Your task to perform on an android device: See recent photos Image 0: 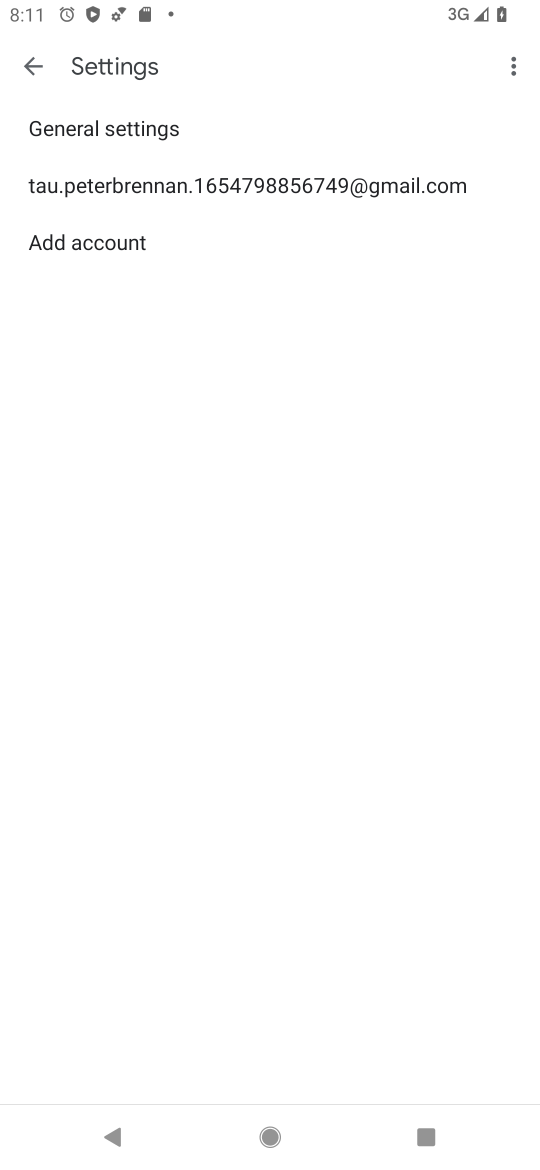
Step 0: click (17, 55)
Your task to perform on an android device: See recent photos Image 1: 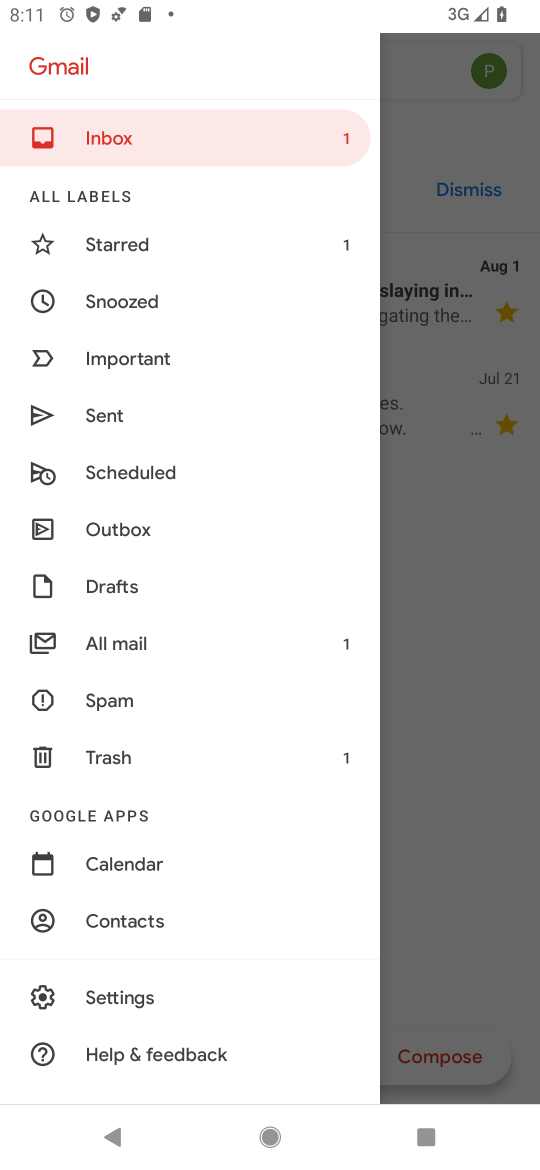
Step 1: press back button
Your task to perform on an android device: See recent photos Image 2: 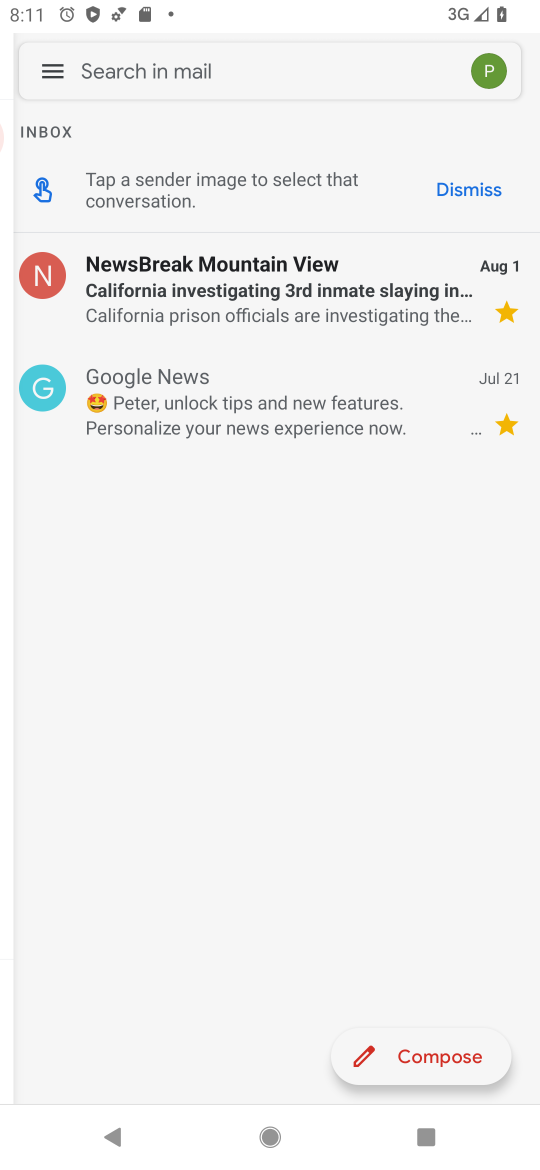
Step 2: press home button
Your task to perform on an android device: See recent photos Image 3: 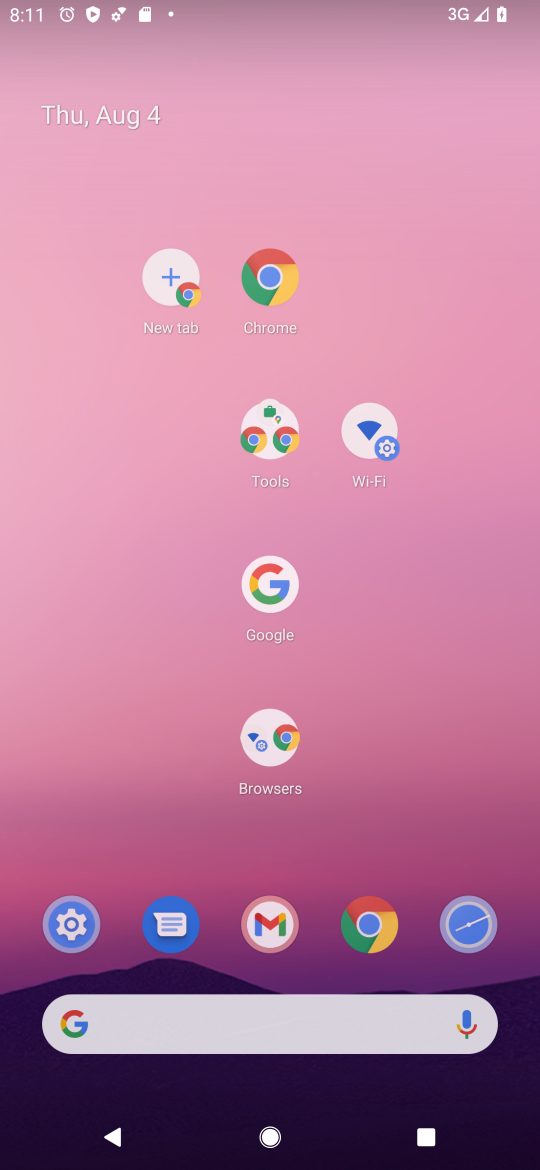
Step 3: press back button
Your task to perform on an android device: See recent photos Image 4: 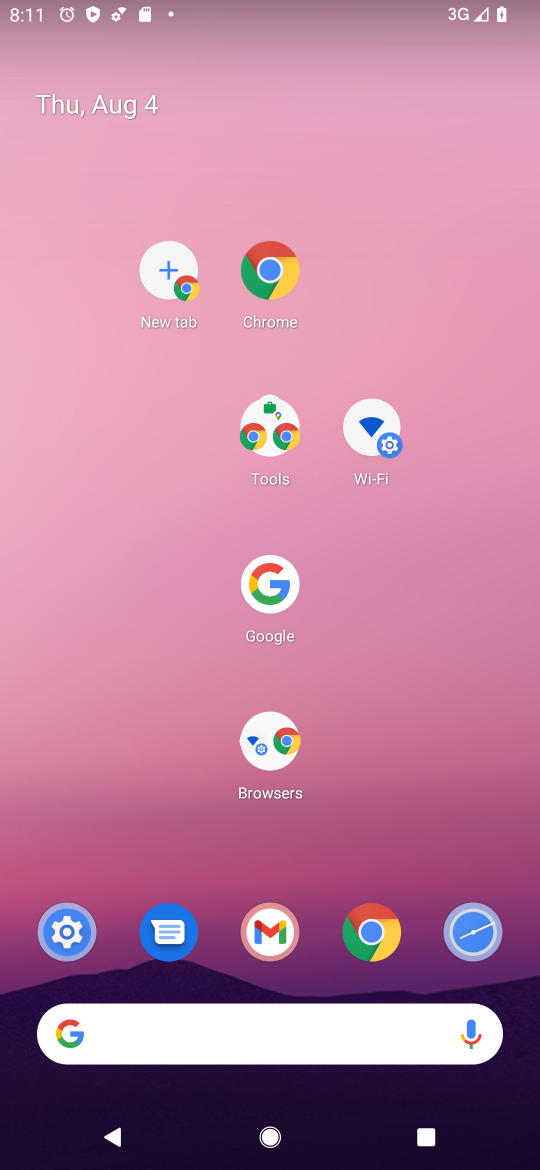
Step 4: drag from (288, 1068) to (344, 226)
Your task to perform on an android device: See recent photos Image 5: 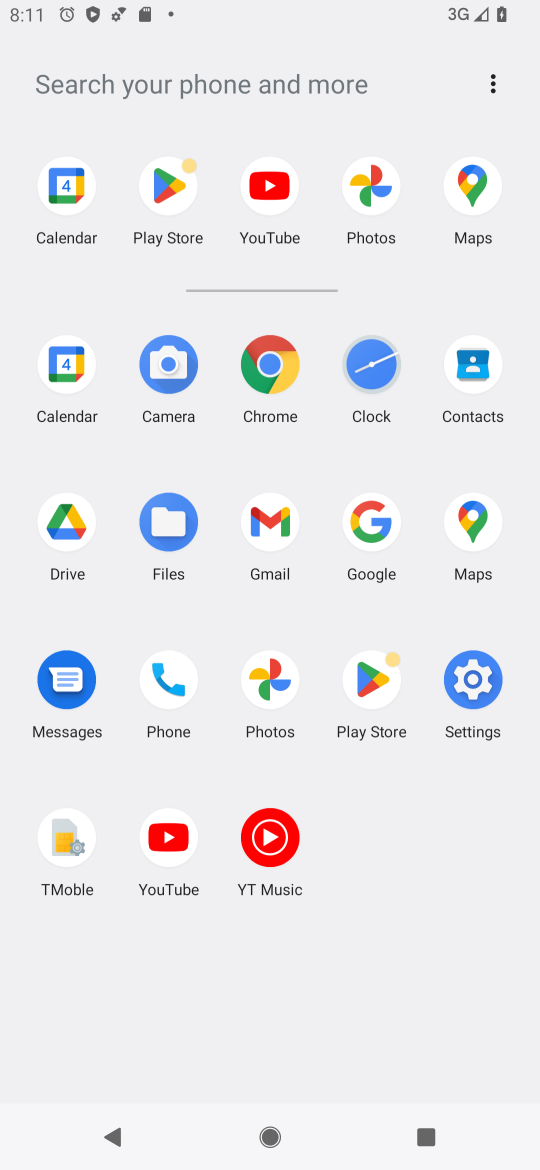
Step 5: click (224, 204)
Your task to perform on an android device: See recent photos Image 6: 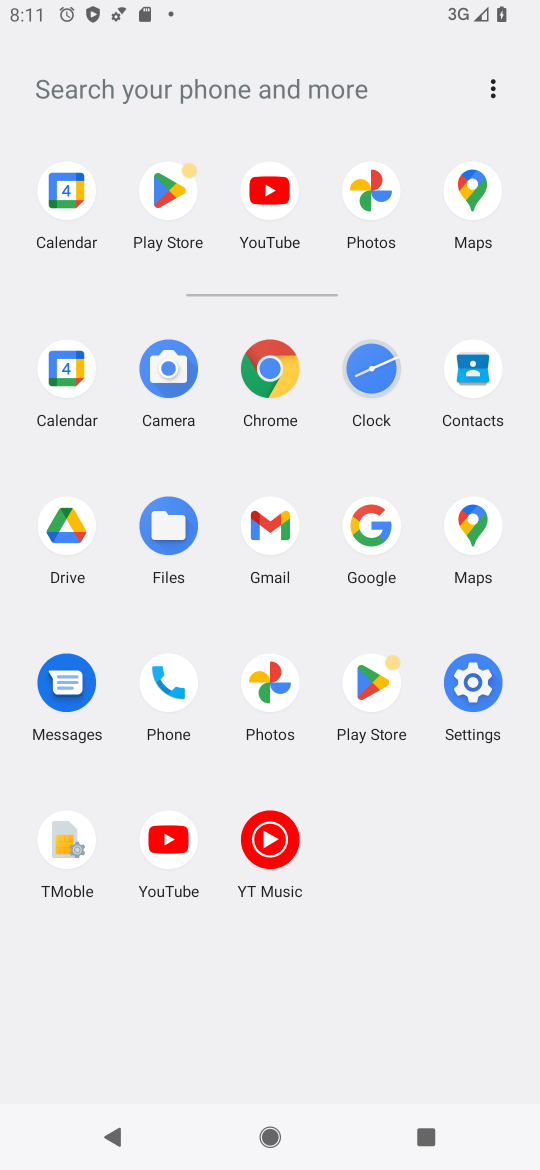
Step 6: click (268, 674)
Your task to perform on an android device: See recent photos Image 7: 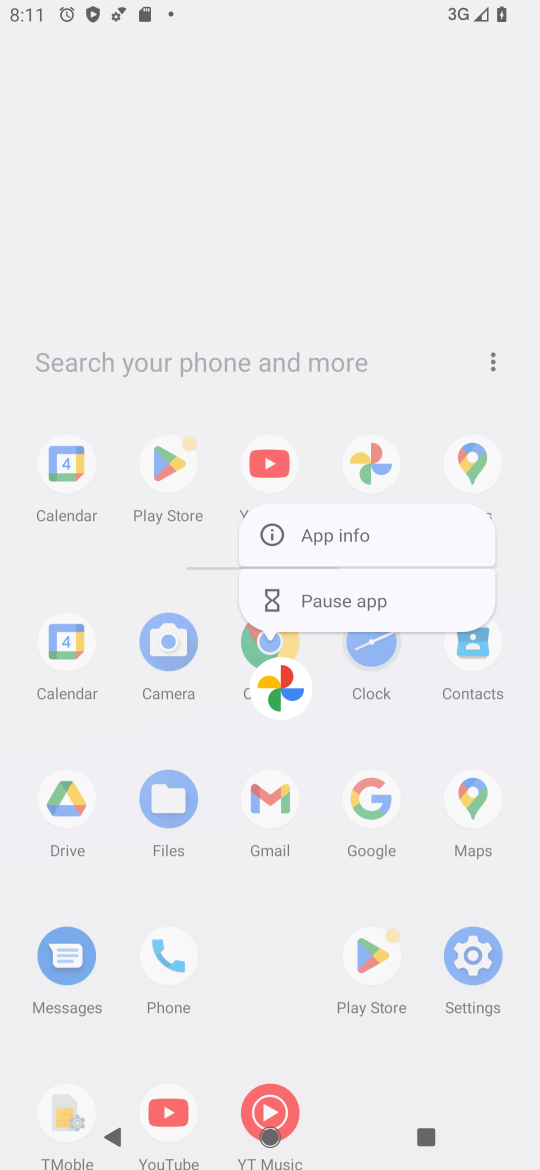
Step 7: click (285, 681)
Your task to perform on an android device: See recent photos Image 8: 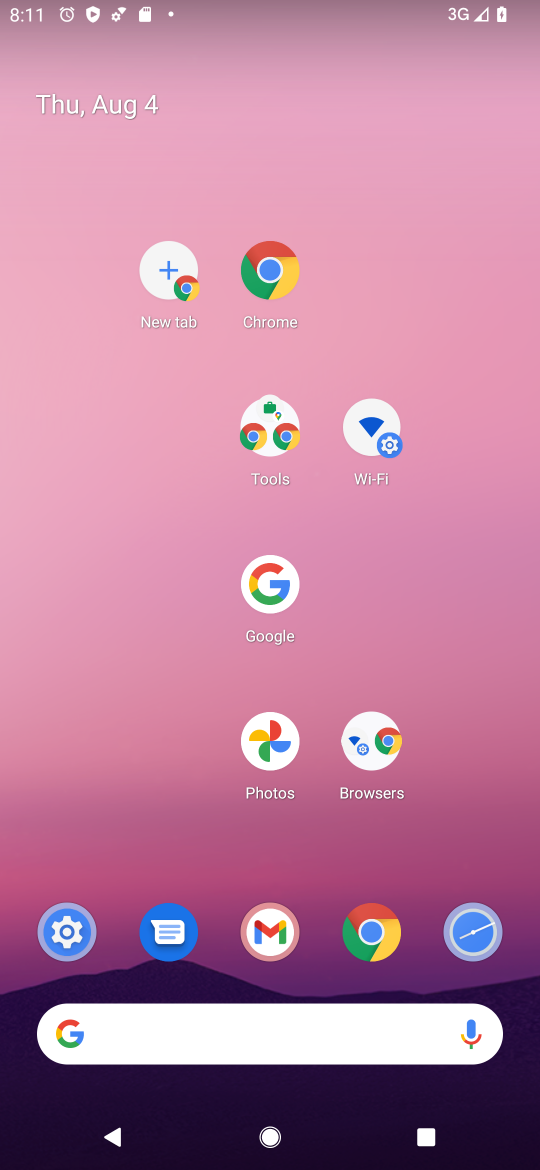
Step 8: drag from (289, 952) to (325, 310)
Your task to perform on an android device: See recent photos Image 9: 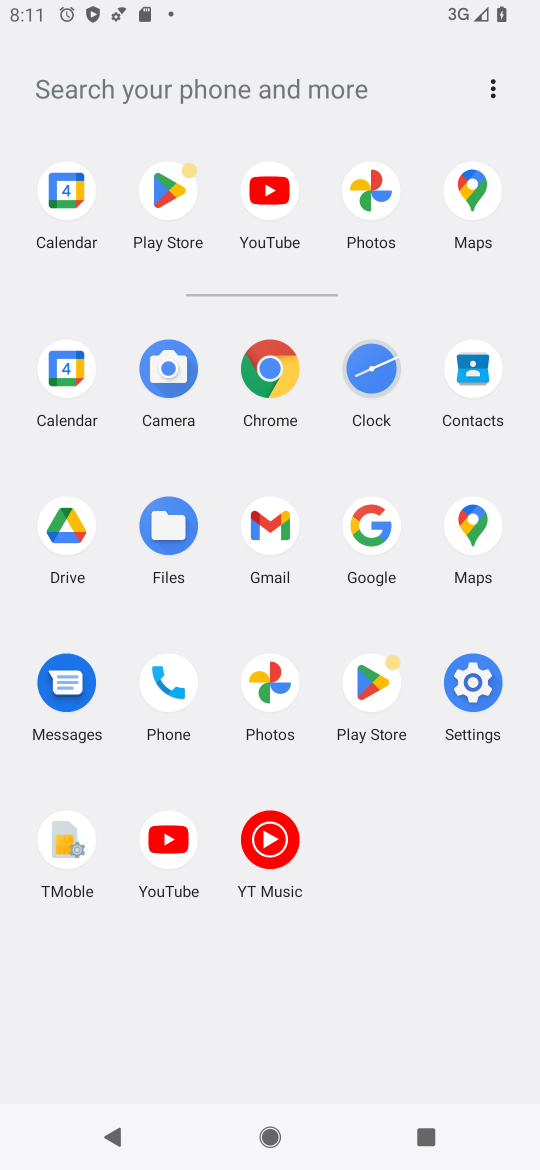
Step 9: click (259, 672)
Your task to perform on an android device: See recent photos Image 10: 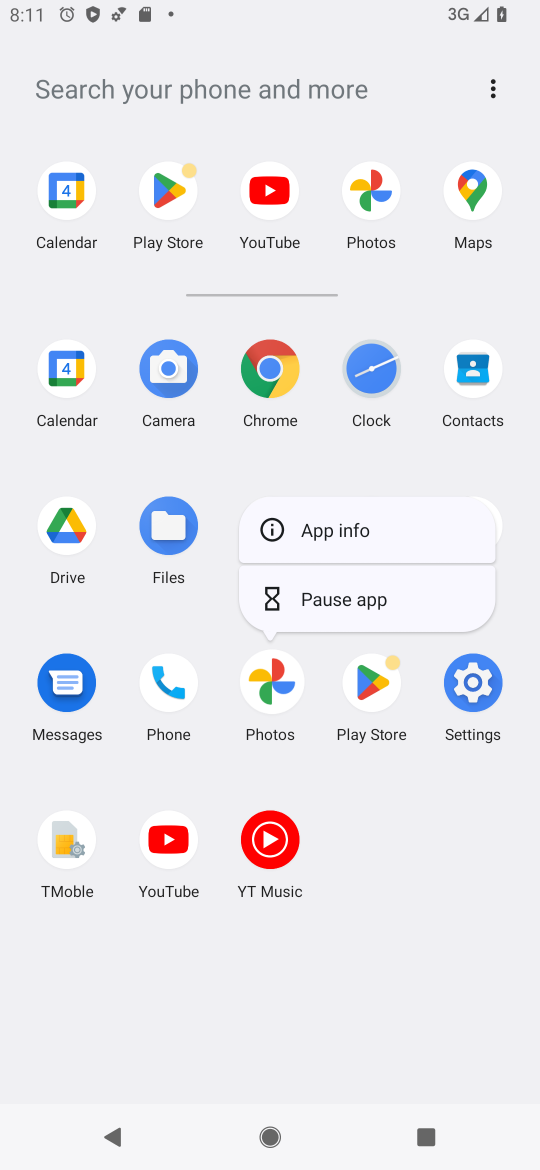
Step 10: click (275, 682)
Your task to perform on an android device: See recent photos Image 11: 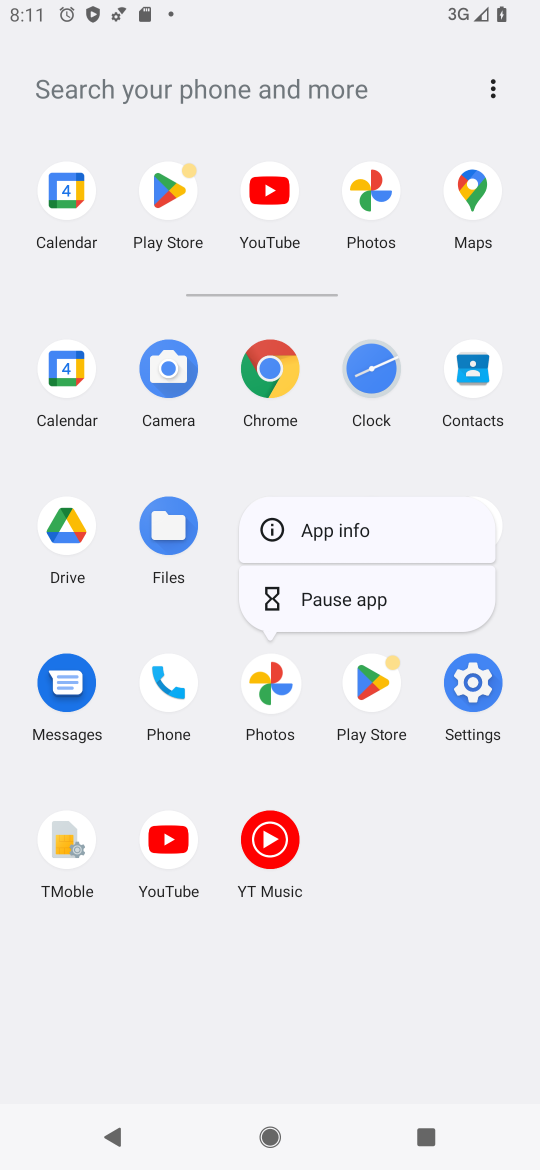
Step 11: click (278, 679)
Your task to perform on an android device: See recent photos Image 12: 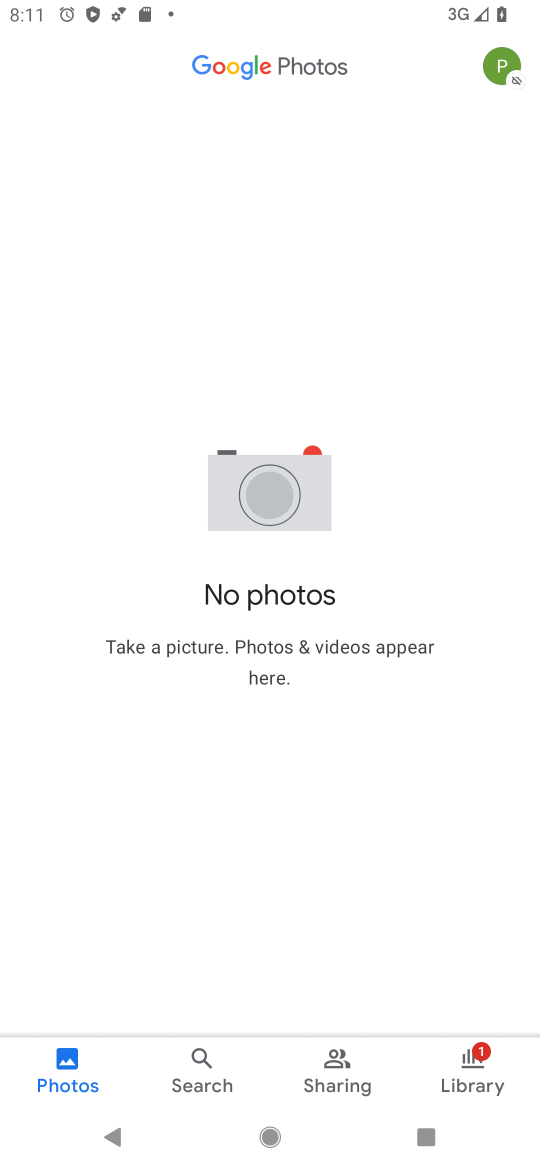
Step 12: task complete